Your task to perform on an android device: Search for asus rog on newegg, select the first entry, and add it to the cart. Image 0: 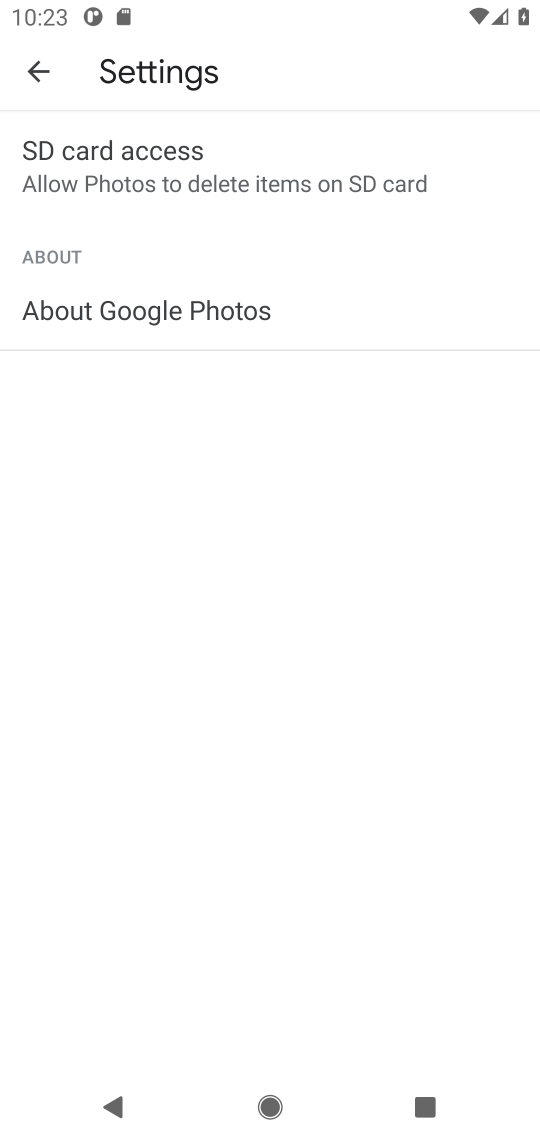
Step 0: press home button
Your task to perform on an android device: Search for asus rog on newegg, select the first entry, and add it to the cart. Image 1: 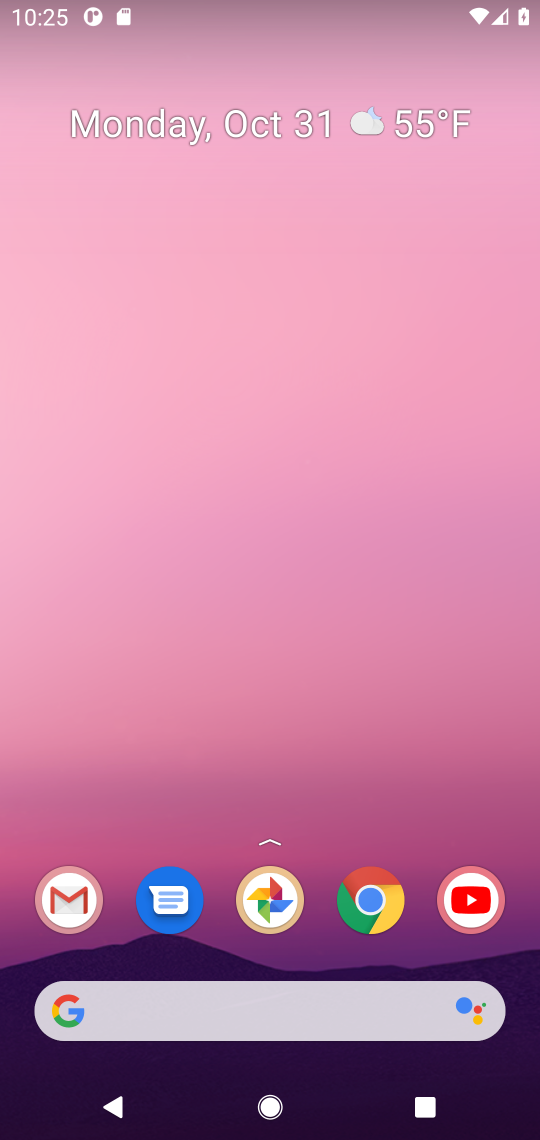
Step 1: click (373, 913)
Your task to perform on an android device: Search for asus rog on newegg, select the first entry, and add it to the cart. Image 2: 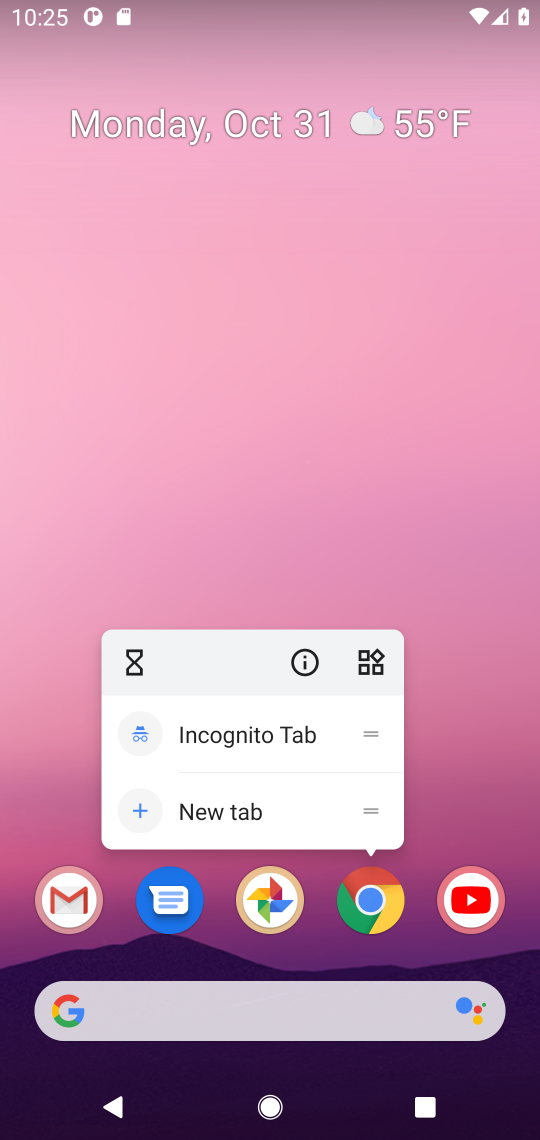
Step 2: click (373, 913)
Your task to perform on an android device: Search for asus rog on newegg, select the first entry, and add it to the cart. Image 3: 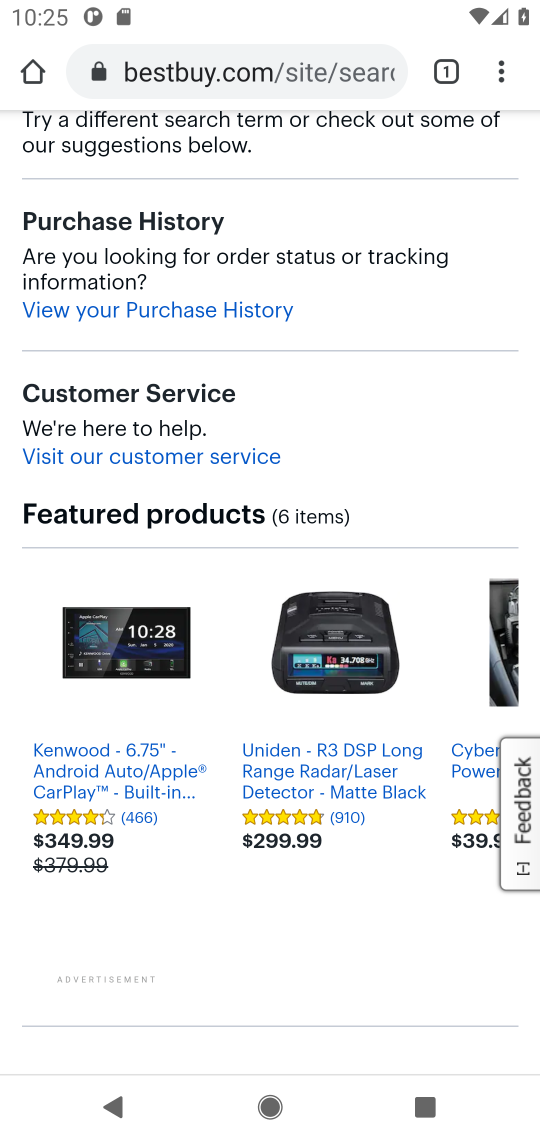
Step 3: click (305, 73)
Your task to perform on an android device: Search for asus rog on newegg, select the first entry, and add it to the cart. Image 4: 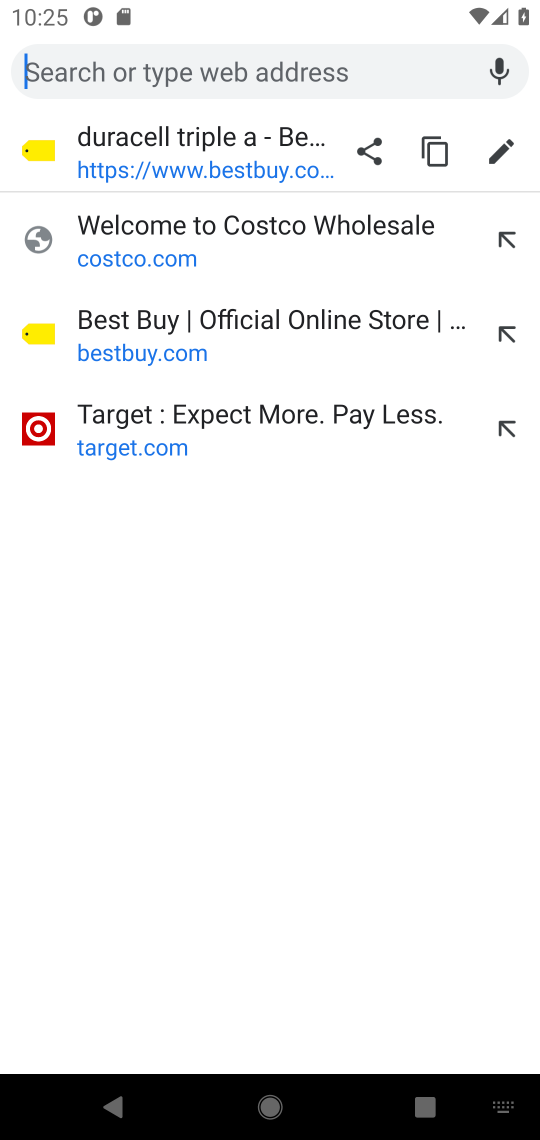
Step 4: type "newegg.com"
Your task to perform on an android device: Search for asus rog on newegg, select the first entry, and add it to the cart. Image 5: 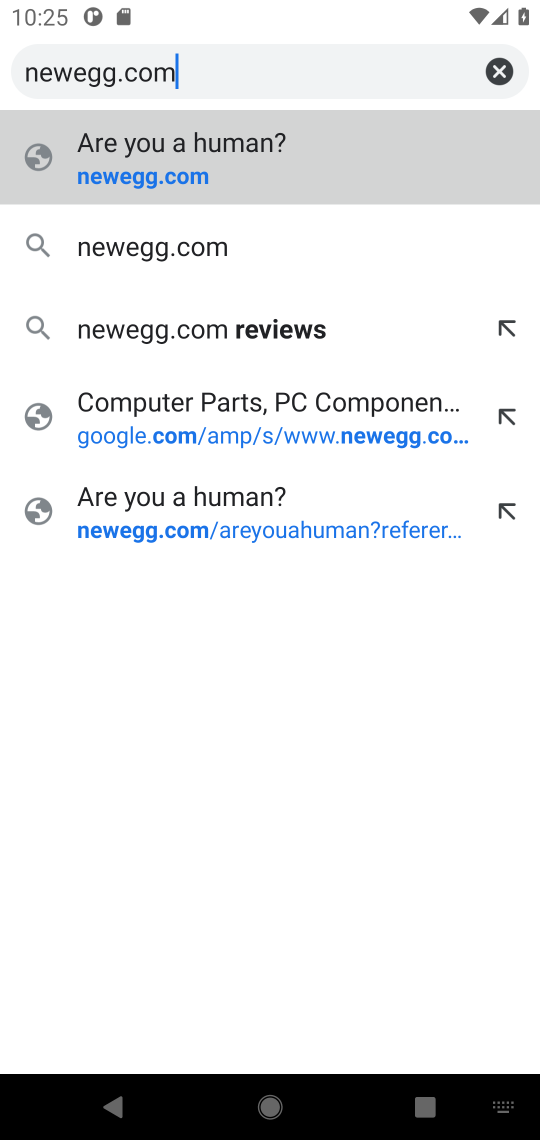
Step 5: click (170, 252)
Your task to perform on an android device: Search for asus rog on newegg, select the first entry, and add it to the cart. Image 6: 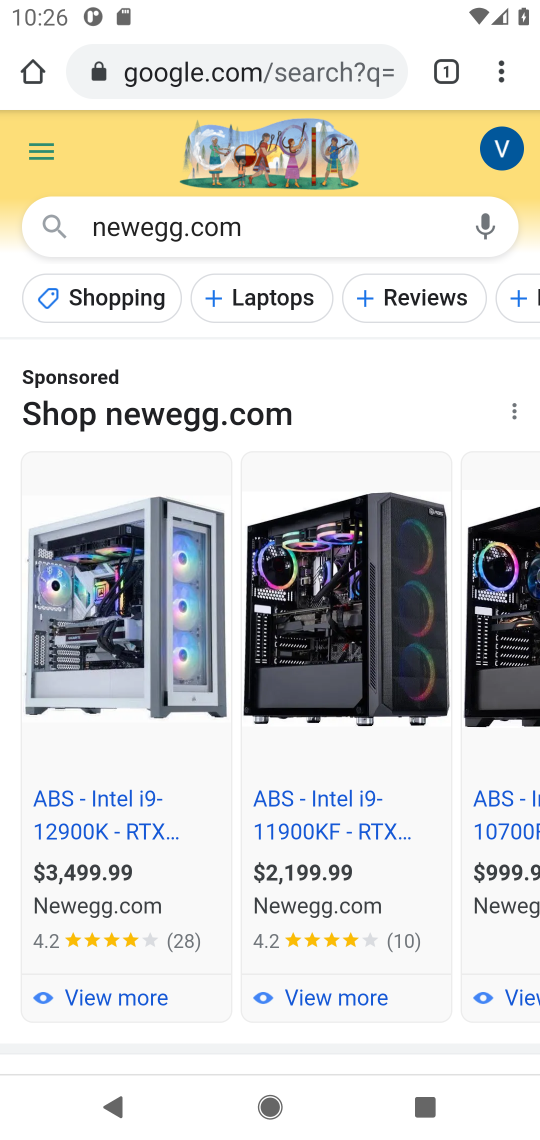
Step 6: drag from (211, 783) to (204, 332)
Your task to perform on an android device: Search for asus rog on newegg, select the first entry, and add it to the cart. Image 7: 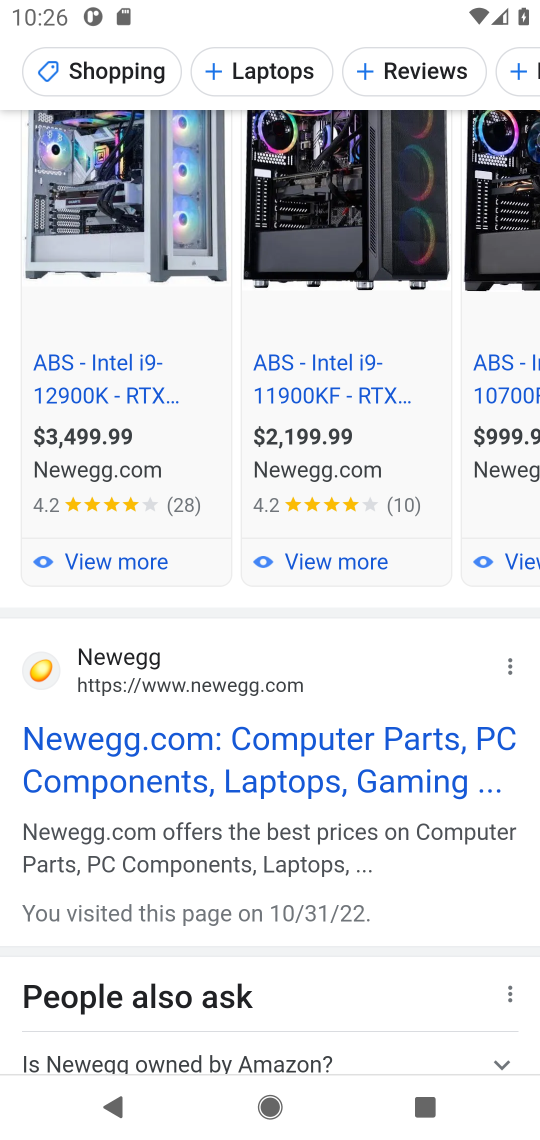
Step 7: click (175, 685)
Your task to perform on an android device: Search for asus rog on newegg, select the first entry, and add it to the cart. Image 8: 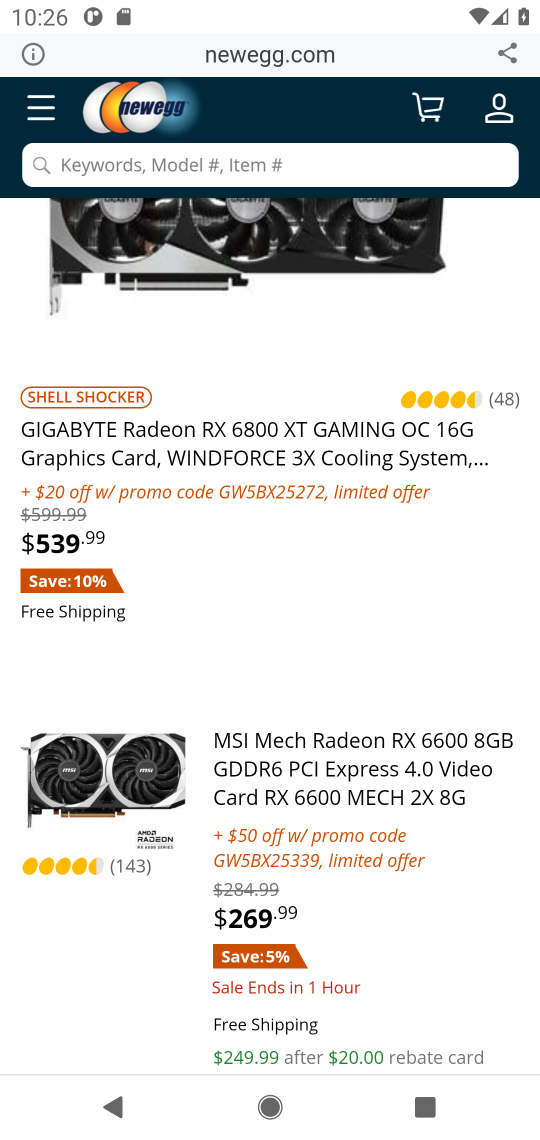
Step 8: click (163, 173)
Your task to perform on an android device: Search for asus rog on newegg, select the first entry, and add it to the cart. Image 9: 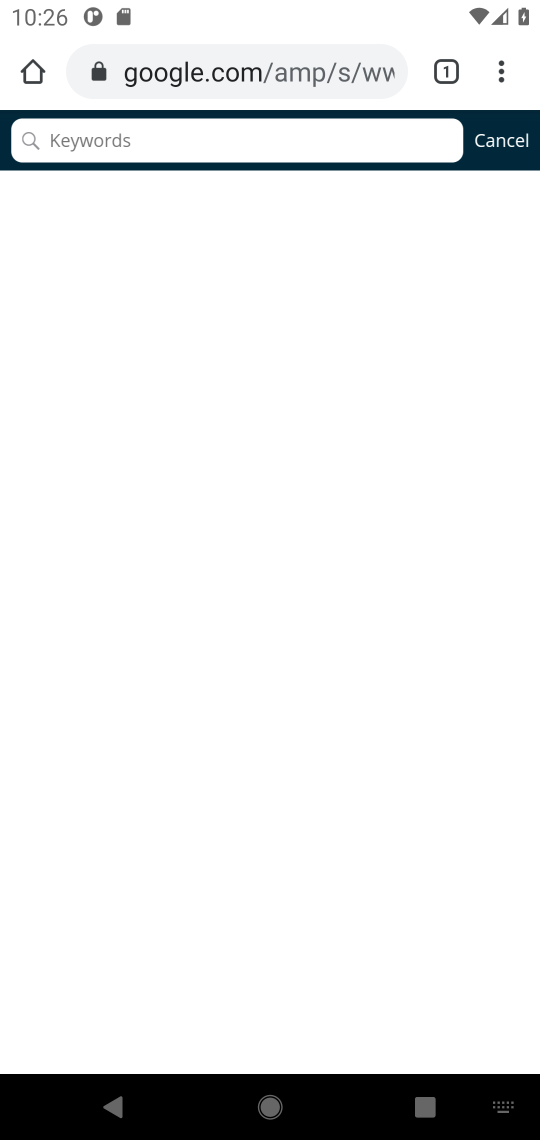
Step 9: type "asus rog"
Your task to perform on an android device: Search for asus rog on newegg, select the first entry, and add it to the cart. Image 10: 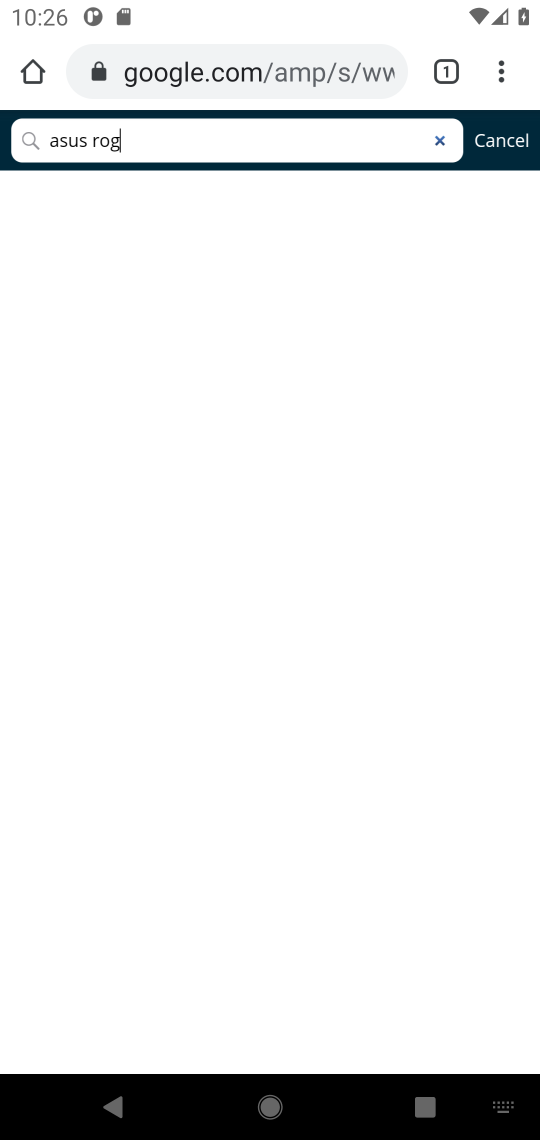
Step 10: click (165, 152)
Your task to perform on an android device: Search for asus rog on newegg, select the first entry, and add it to the cart. Image 11: 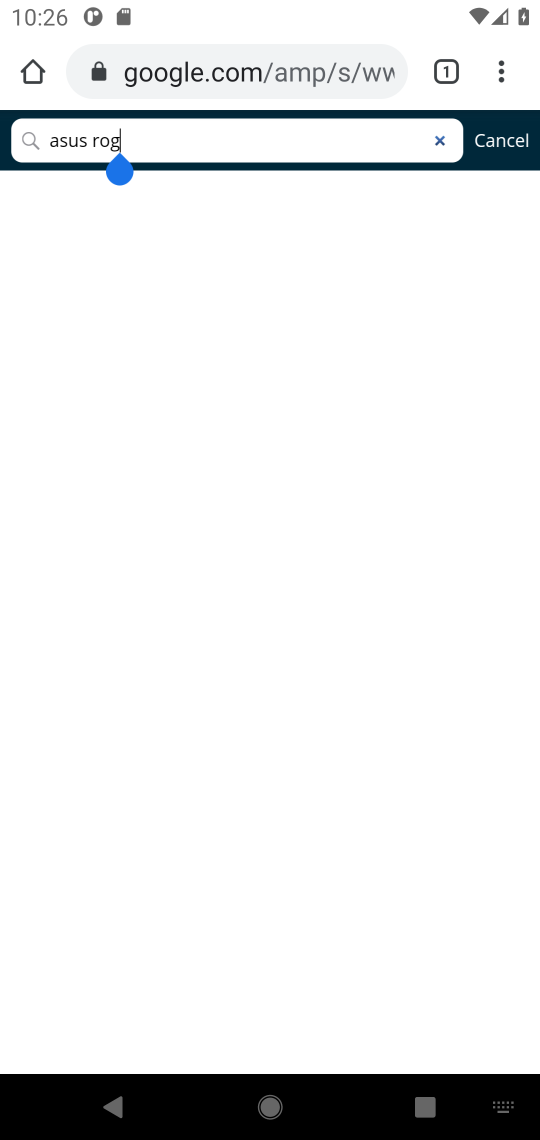
Step 11: click (38, 143)
Your task to perform on an android device: Search for asus rog on newegg, select the first entry, and add it to the cart. Image 12: 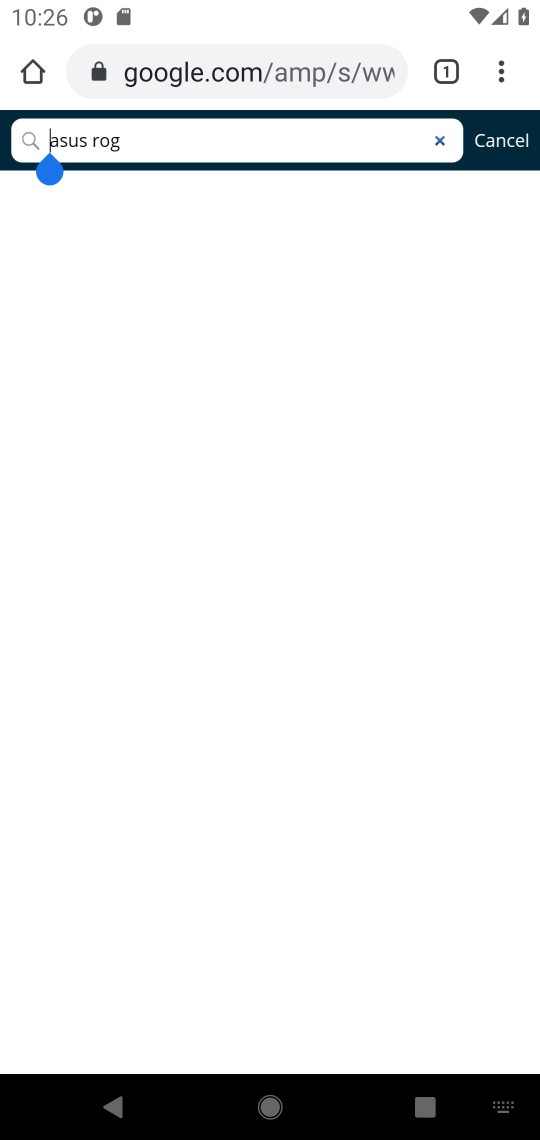
Step 12: click (27, 143)
Your task to perform on an android device: Search for asus rog on newegg, select the first entry, and add it to the cart. Image 13: 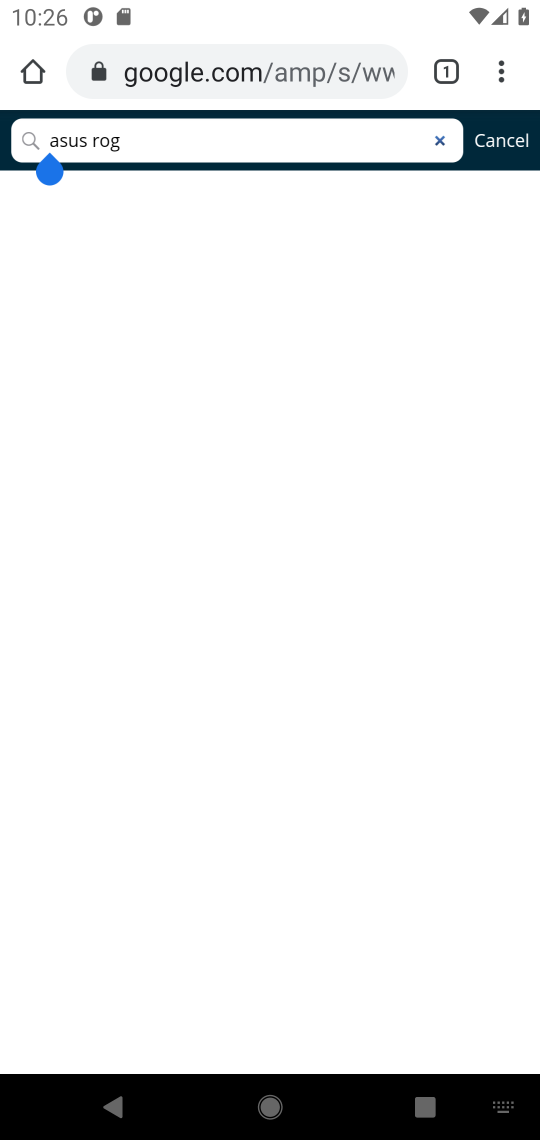
Step 13: task complete